Your task to perform on an android device: turn pop-ups on in chrome Image 0: 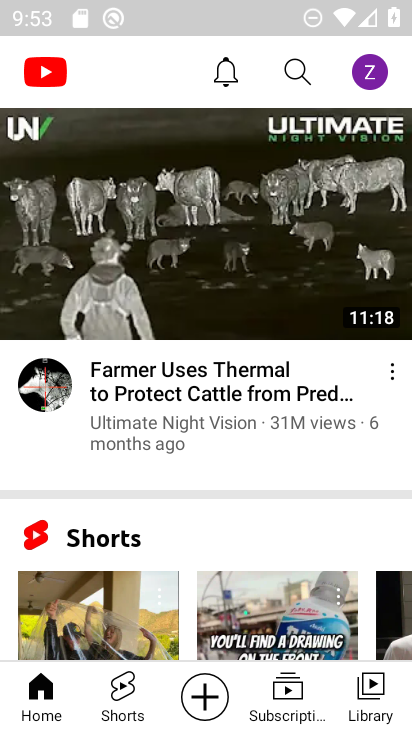
Step 0: press home button
Your task to perform on an android device: turn pop-ups on in chrome Image 1: 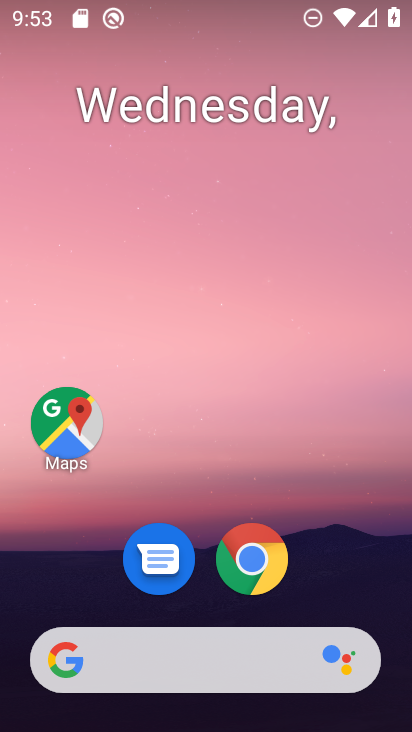
Step 1: drag from (358, 582) to (357, 168)
Your task to perform on an android device: turn pop-ups on in chrome Image 2: 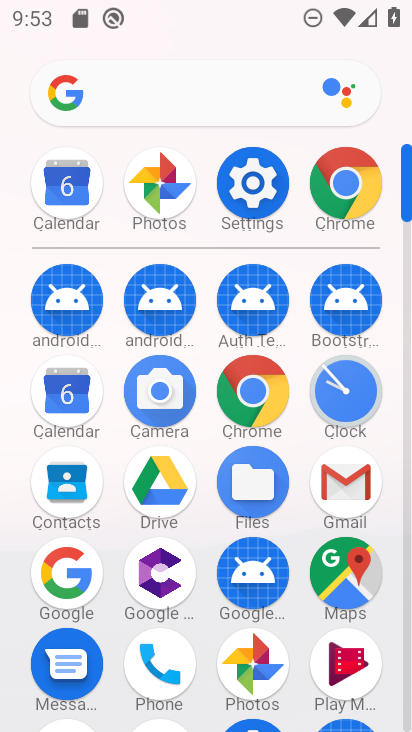
Step 2: click (264, 393)
Your task to perform on an android device: turn pop-ups on in chrome Image 3: 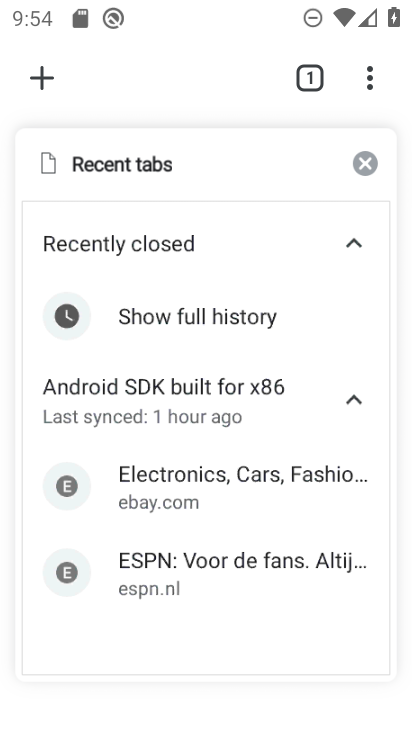
Step 3: click (371, 78)
Your task to perform on an android device: turn pop-ups on in chrome Image 4: 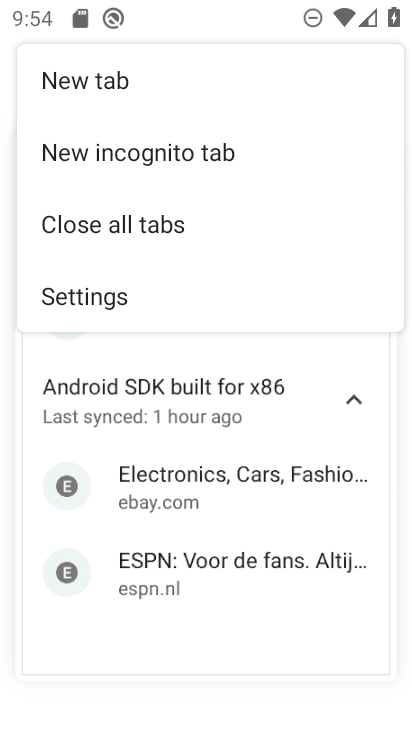
Step 4: click (136, 299)
Your task to perform on an android device: turn pop-ups on in chrome Image 5: 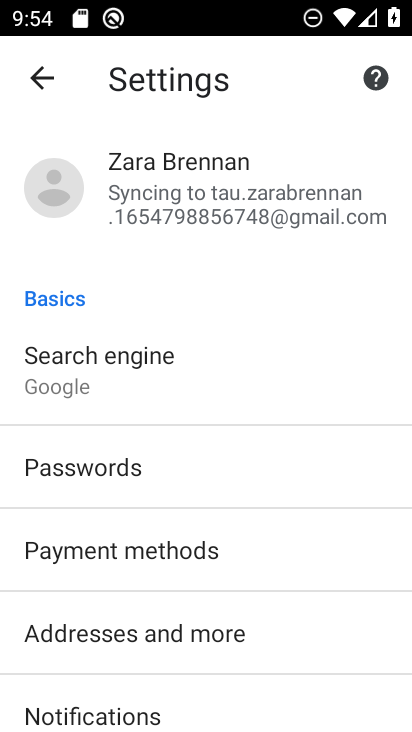
Step 5: drag from (357, 532) to (358, 431)
Your task to perform on an android device: turn pop-ups on in chrome Image 6: 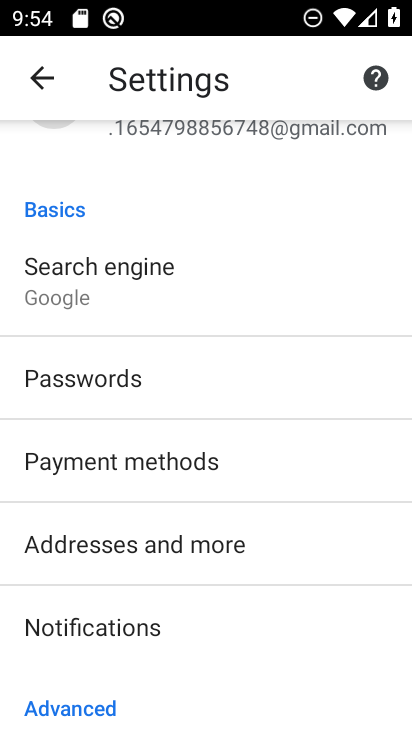
Step 6: drag from (357, 584) to (359, 502)
Your task to perform on an android device: turn pop-ups on in chrome Image 7: 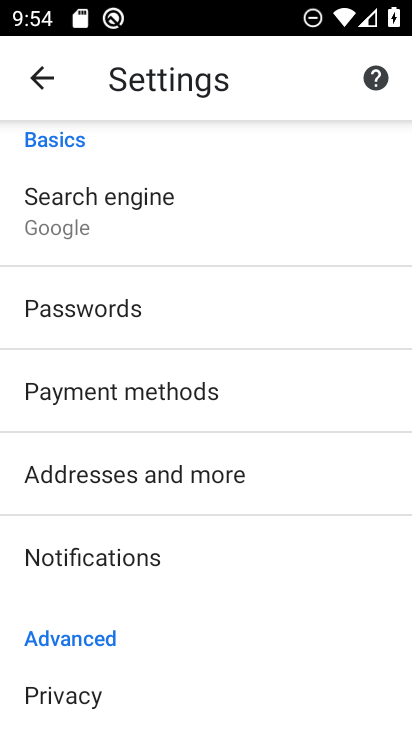
Step 7: drag from (349, 611) to (345, 504)
Your task to perform on an android device: turn pop-ups on in chrome Image 8: 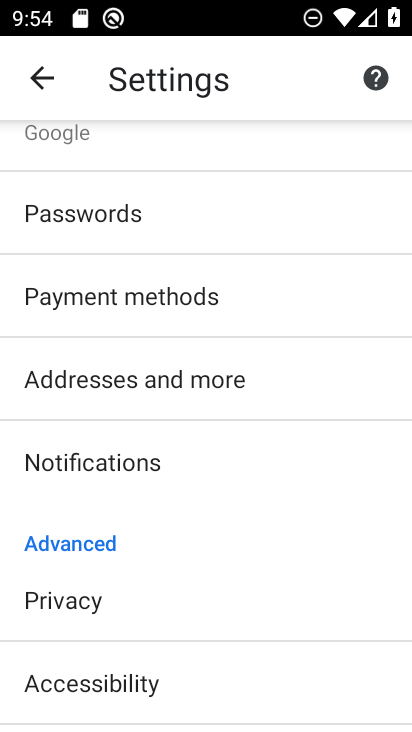
Step 8: drag from (341, 642) to (343, 558)
Your task to perform on an android device: turn pop-ups on in chrome Image 9: 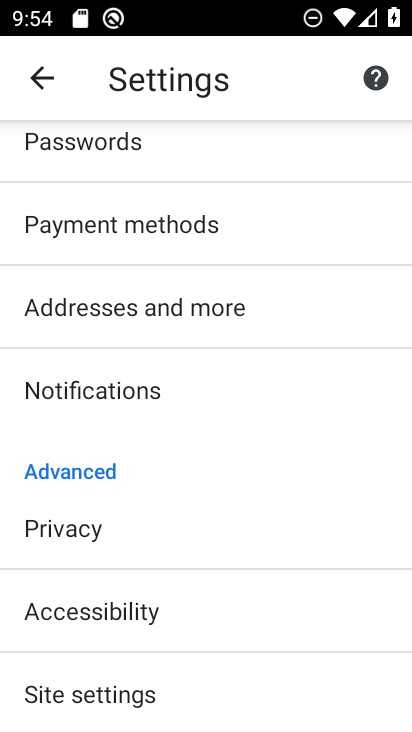
Step 9: drag from (337, 634) to (340, 546)
Your task to perform on an android device: turn pop-ups on in chrome Image 10: 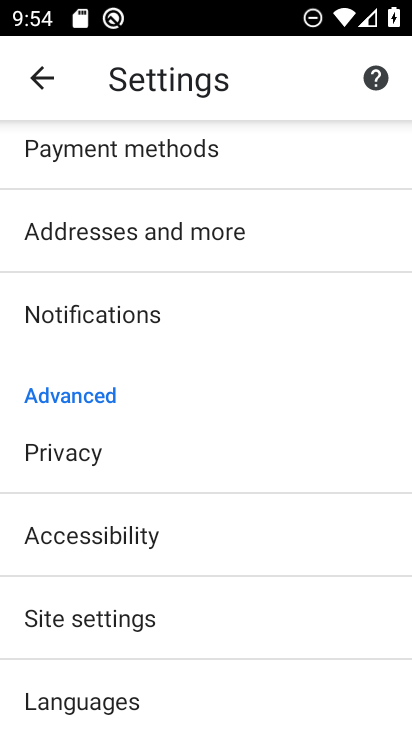
Step 10: drag from (316, 595) to (332, 519)
Your task to perform on an android device: turn pop-ups on in chrome Image 11: 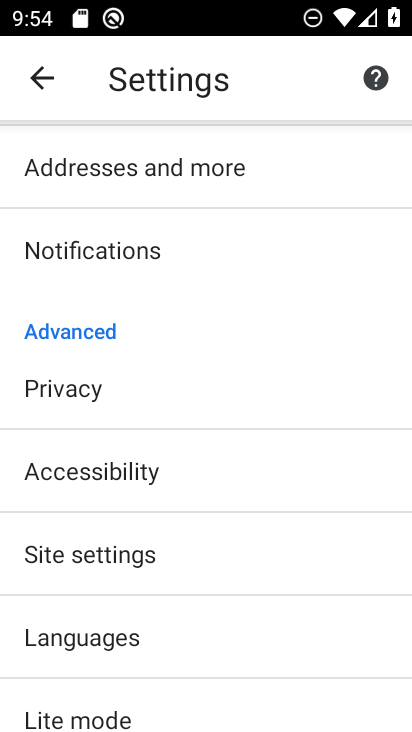
Step 11: drag from (234, 554) to (249, 454)
Your task to perform on an android device: turn pop-ups on in chrome Image 12: 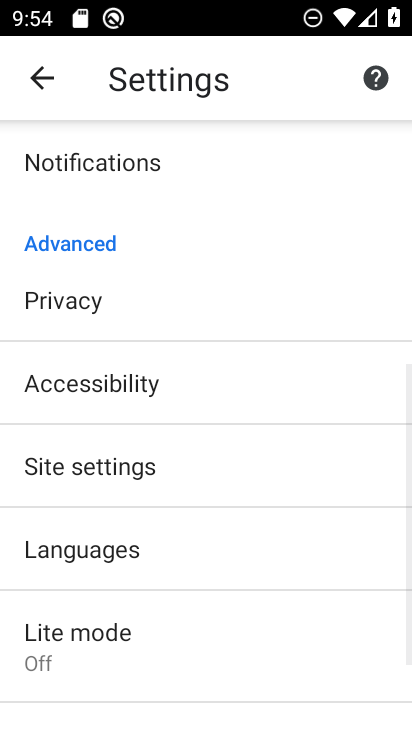
Step 12: click (249, 485)
Your task to perform on an android device: turn pop-ups on in chrome Image 13: 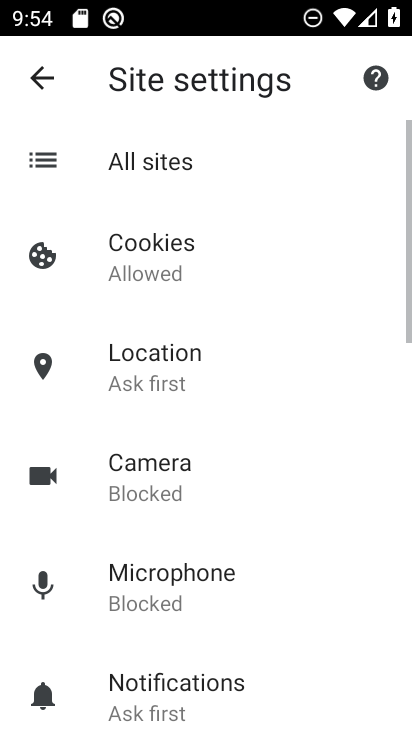
Step 13: drag from (299, 506) to (319, 403)
Your task to perform on an android device: turn pop-ups on in chrome Image 14: 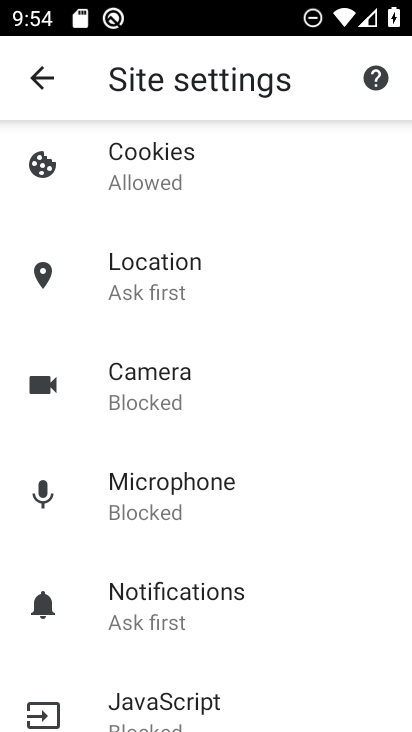
Step 14: drag from (332, 499) to (334, 413)
Your task to perform on an android device: turn pop-ups on in chrome Image 15: 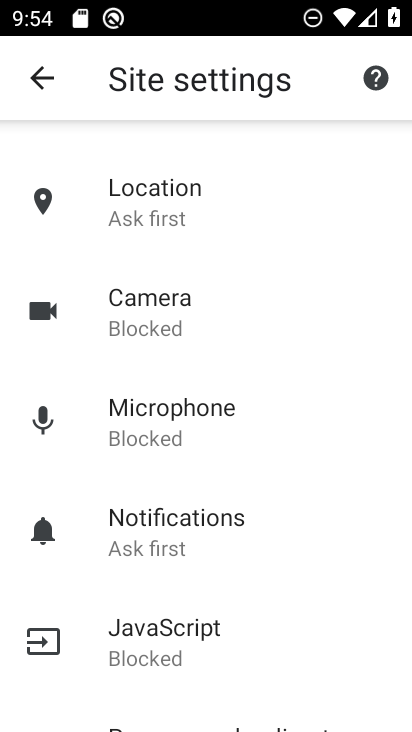
Step 15: drag from (332, 503) to (331, 383)
Your task to perform on an android device: turn pop-ups on in chrome Image 16: 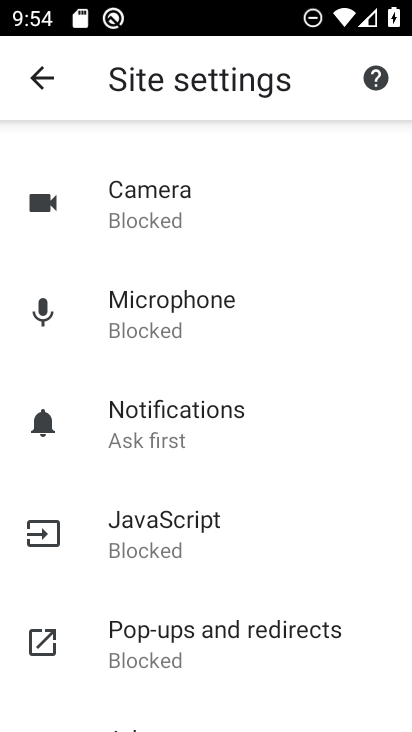
Step 16: drag from (326, 536) to (330, 410)
Your task to perform on an android device: turn pop-ups on in chrome Image 17: 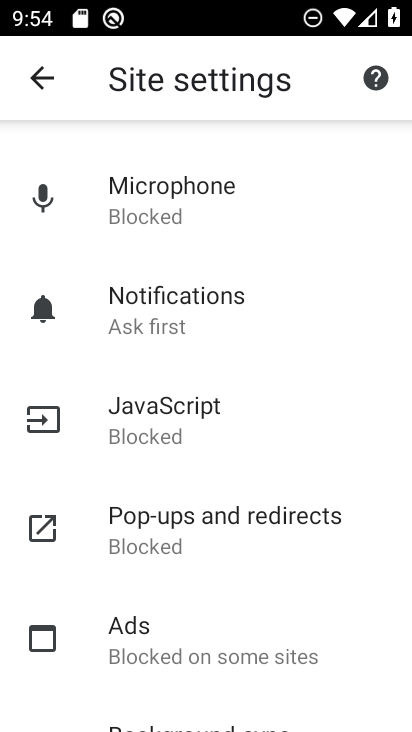
Step 17: drag from (355, 604) to (362, 504)
Your task to perform on an android device: turn pop-ups on in chrome Image 18: 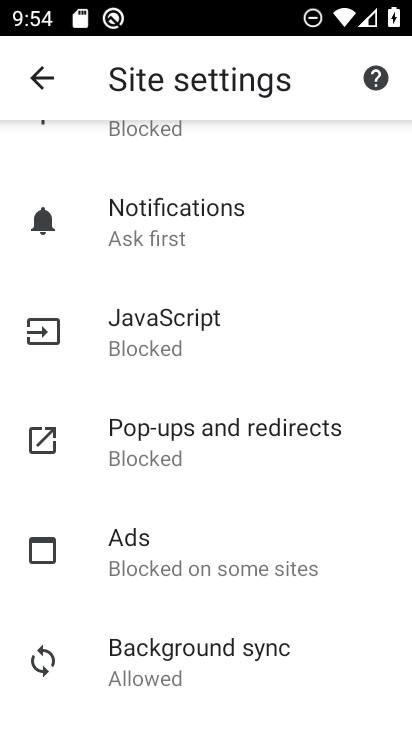
Step 18: click (267, 439)
Your task to perform on an android device: turn pop-ups on in chrome Image 19: 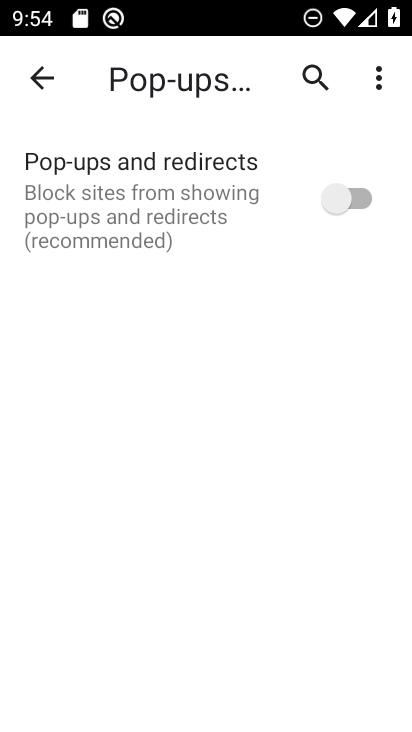
Step 19: click (344, 203)
Your task to perform on an android device: turn pop-ups on in chrome Image 20: 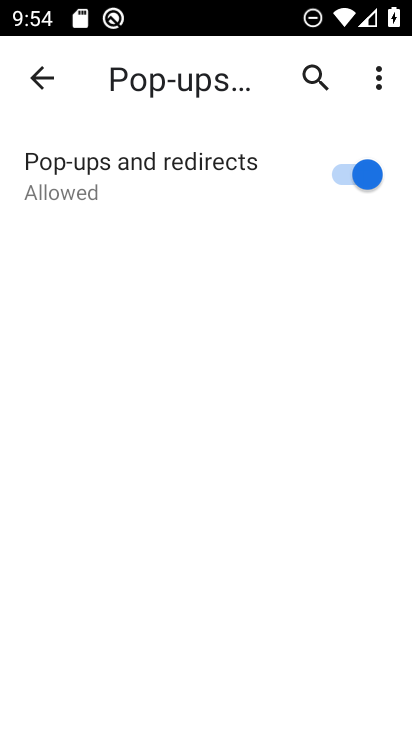
Step 20: task complete